Your task to perform on an android device: Go to display settings Image 0: 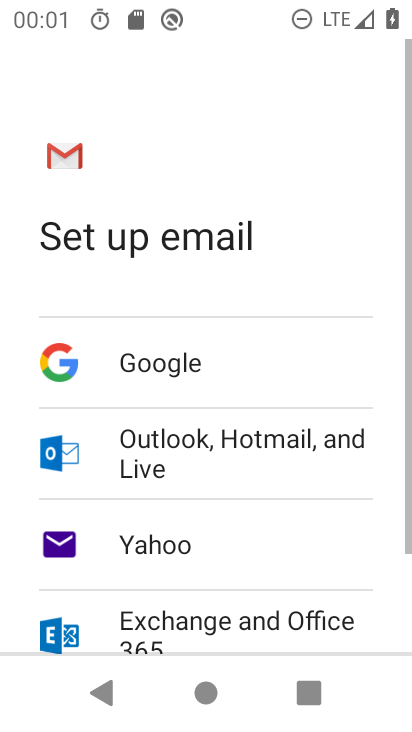
Step 0: press home button
Your task to perform on an android device: Go to display settings Image 1: 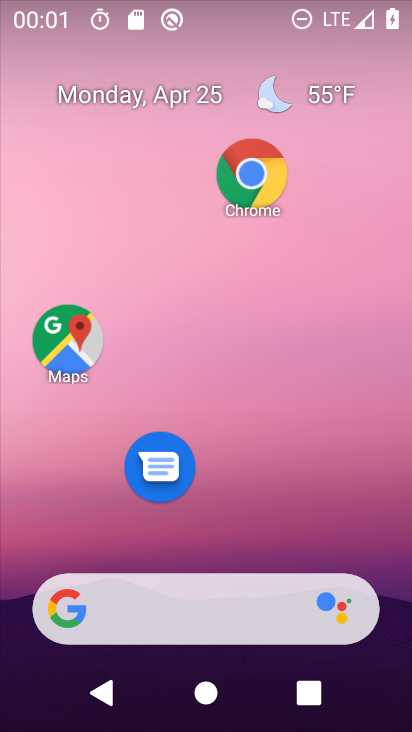
Step 1: drag from (318, 493) to (337, 27)
Your task to perform on an android device: Go to display settings Image 2: 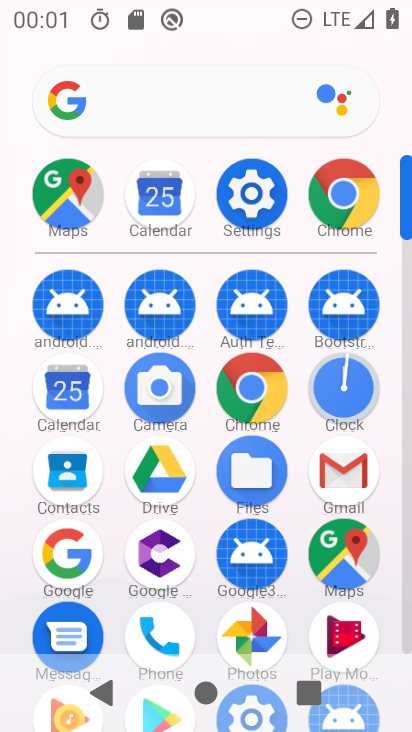
Step 2: click (249, 194)
Your task to perform on an android device: Go to display settings Image 3: 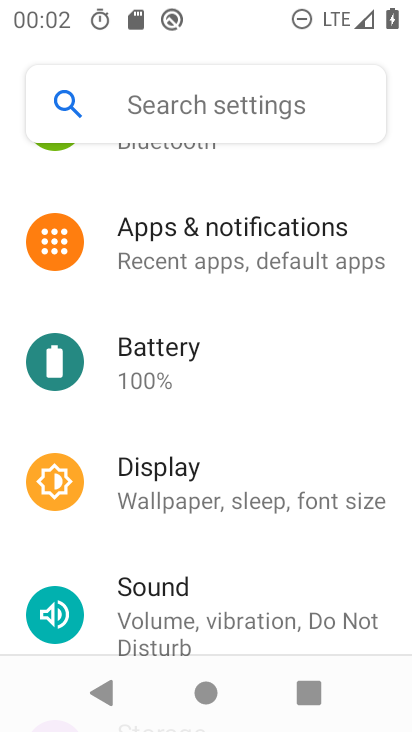
Step 3: click (234, 490)
Your task to perform on an android device: Go to display settings Image 4: 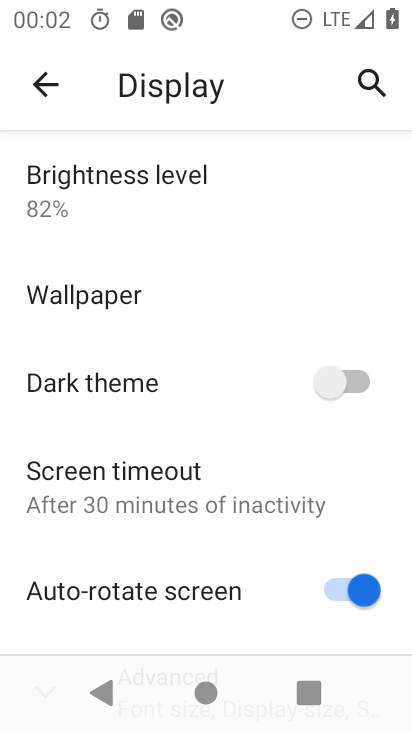
Step 4: task complete